Your task to perform on an android device: star an email in the gmail app Image 0: 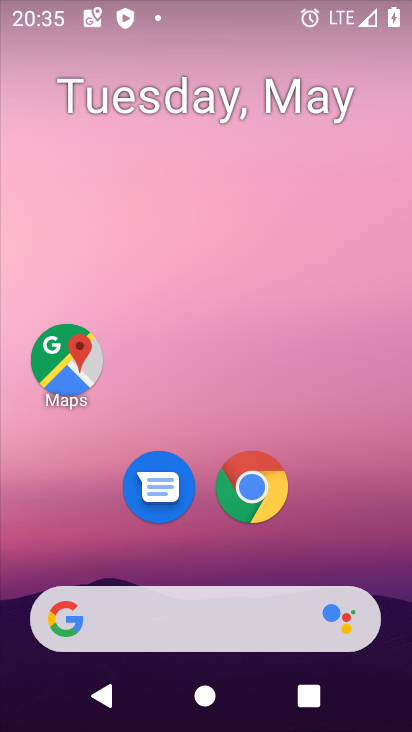
Step 0: drag from (343, 493) to (217, 104)
Your task to perform on an android device: star an email in the gmail app Image 1: 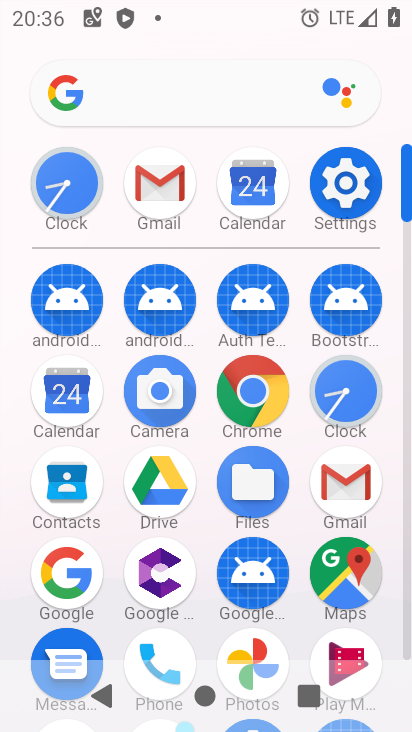
Step 1: click (164, 178)
Your task to perform on an android device: star an email in the gmail app Image 2: 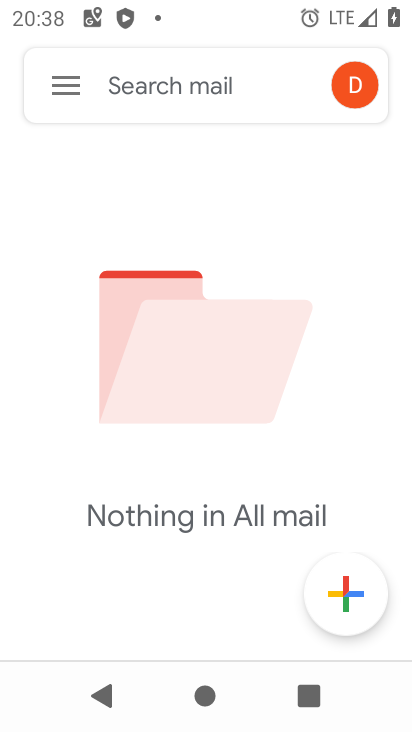
Step 2: task complete